Your task to perform on an android device: check battery use Image 0: 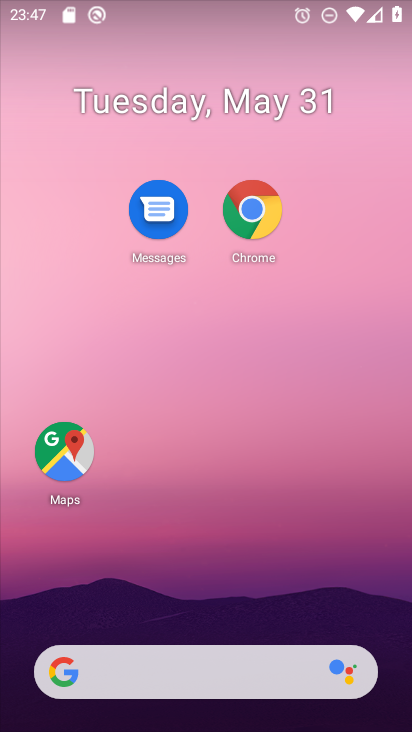
Step 0: drag from (212, 621) to (206, 45)
Your task to perform on an android device: check battery use Image 1: 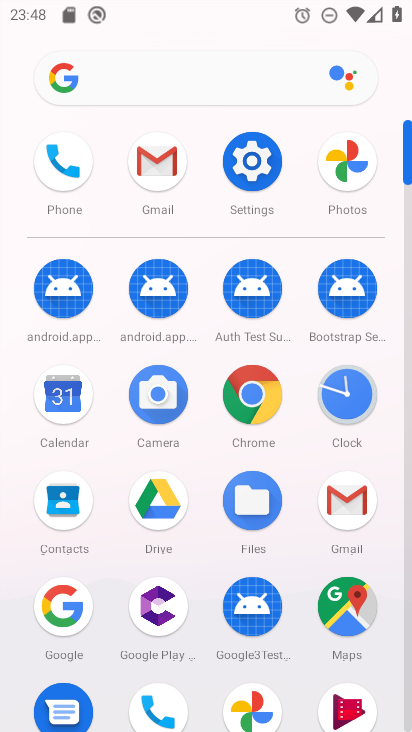
Step 1: click (252, 154)
Your task to perform on an android device: check battery use Image 2: 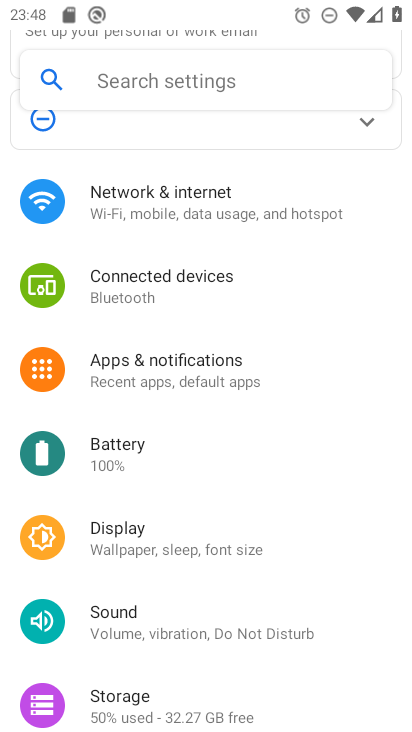
Step 2: click (153, 441)
Your task to perform on an android device: check battery use Image 3: 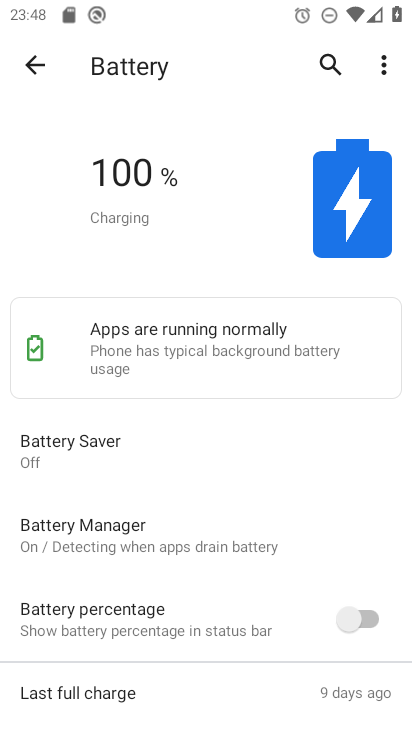
Step 3: click (383, 64)
Your task to perform on an android device: check battery use Image 4: 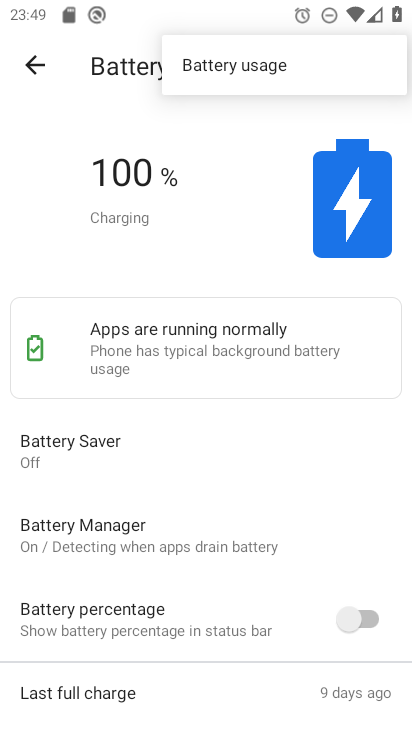
Step 4: click (220, 74)
Your task to perform on an android device: check battery use Image 5: 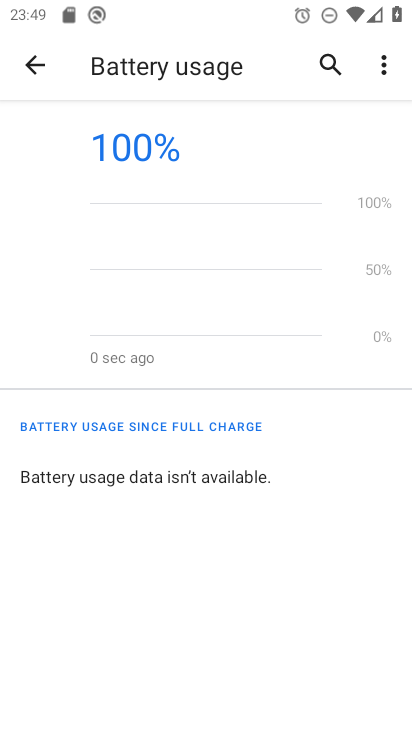
Step 5: task complete